Your task to perform on an android device: toggle pop-ups in chrome Image 0: 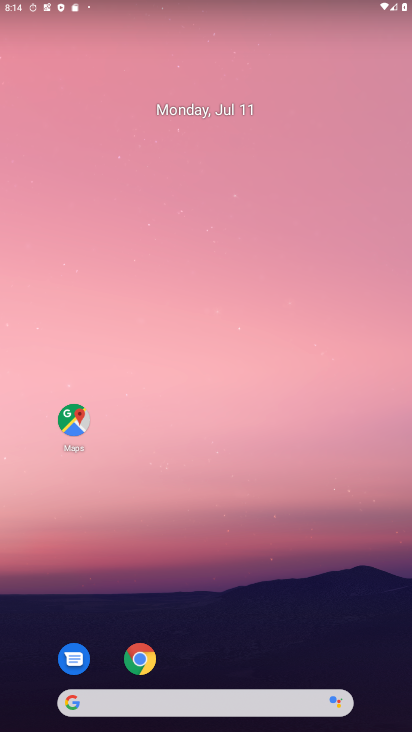
Step 0: drag from (316, 585) to (356, 0)
Your task to perform on an android device: toggle pop-ups in chrome Image 1: 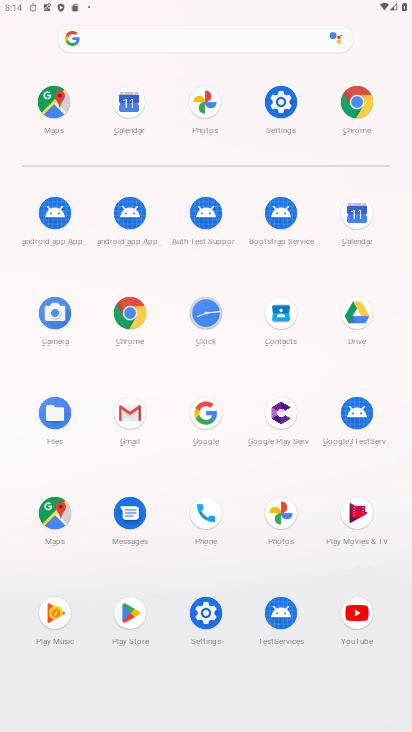
Step 1: click (352, 96)
Your task to perform on an android device: toggle pop-ups in chrome Image 2: 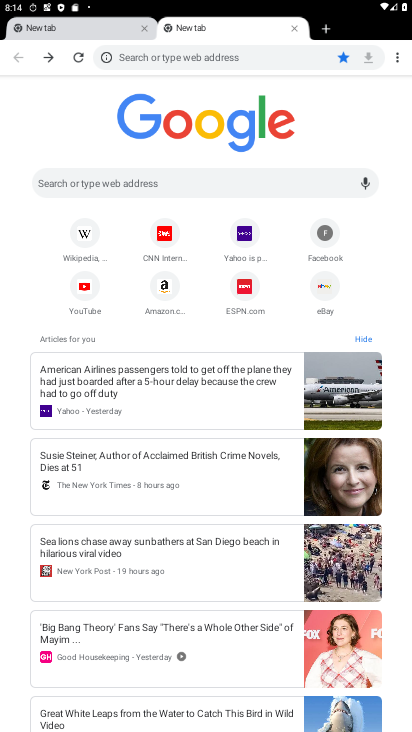
Step 2: drag from (393, 59) to (272, 272)
Your task to perform on an android device: toggle pop-ups in chrome Image 3: 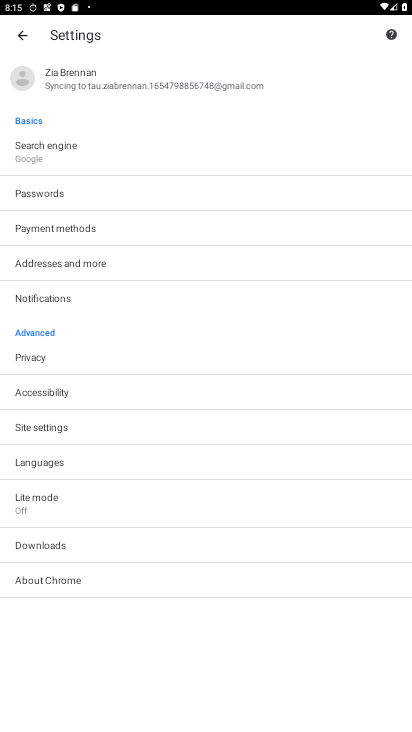
Step 3: click (54, 425)
Your task to perform on an android device: toggle pop-ups in chrome Image 4: 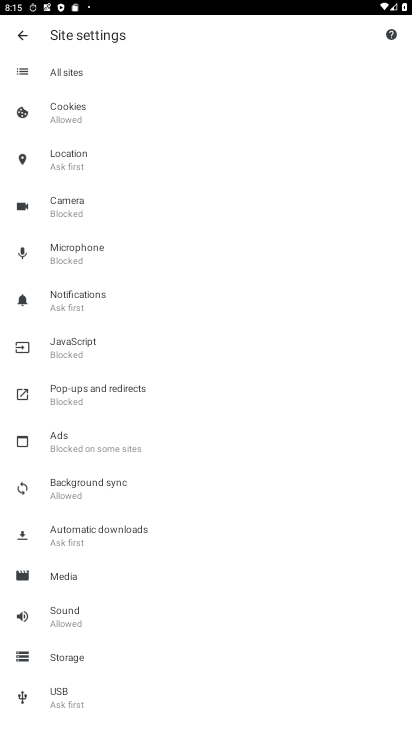
Step 4: click (97, 401)
Your task to perform on an android device: toggle pop-ups in chrome Image 5: 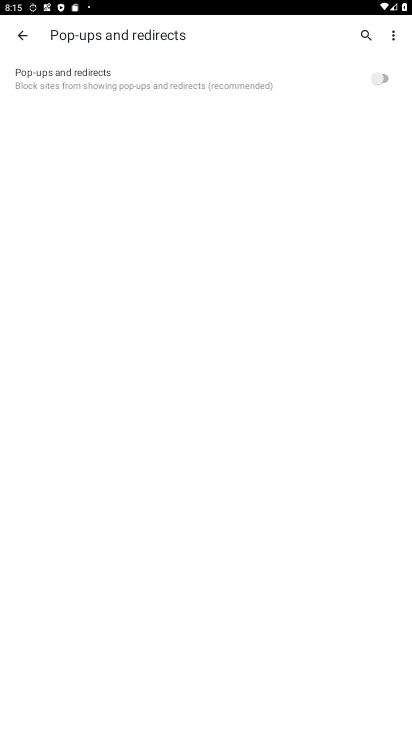
Step 5: click (380, 83)
Your task to perform on an android device: toggle pop-ups in chrome Image 6: 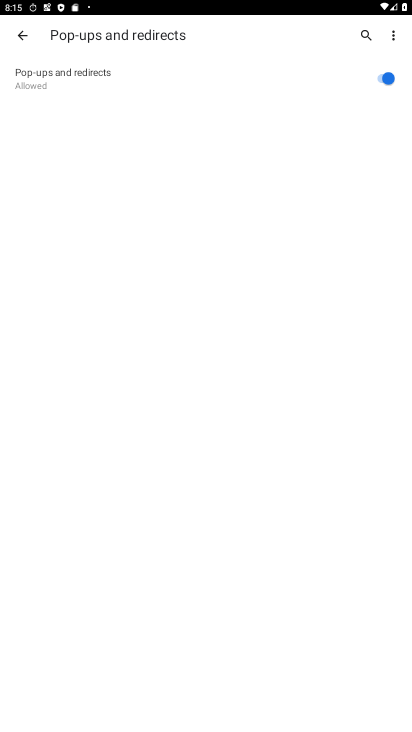
Step 6: task complete